Your task to perform on an android device: change the clock display to show seconds Image 0: 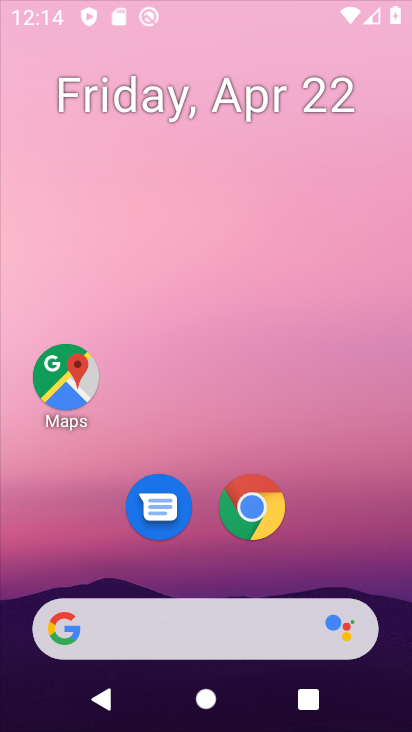
Step 0: click (249, 144)
Your task to perform on an android device: change the clock display to show seconds Image 1: 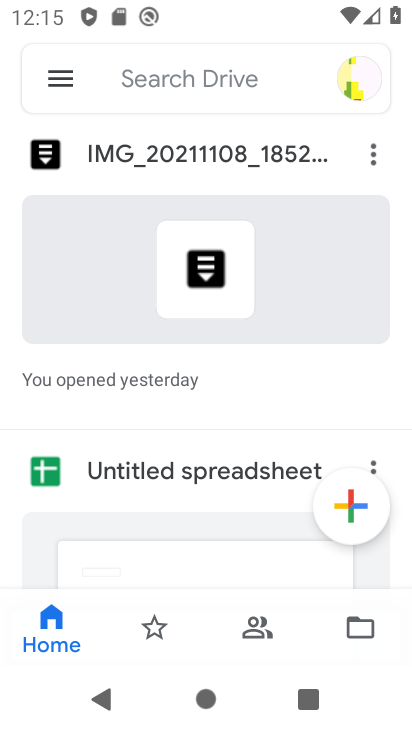
Step 1: press home button
Your task to perform on an android device: change the clock display to show seconds Image 2: 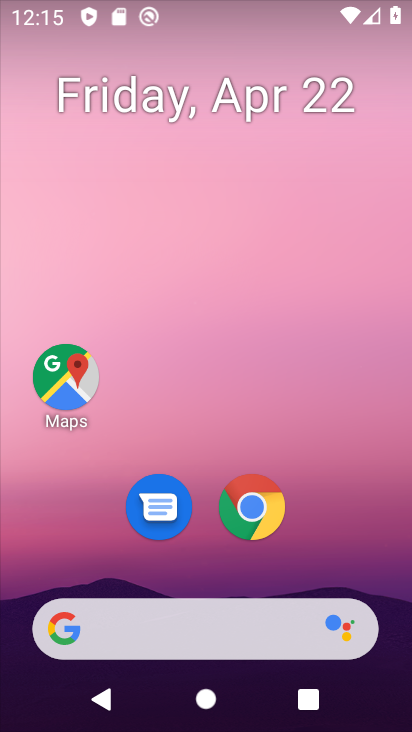
Step 2: drag from (337, 488) to (311, 131)
Your task to perform on an android device: change the clock display to show seconds Image 3: 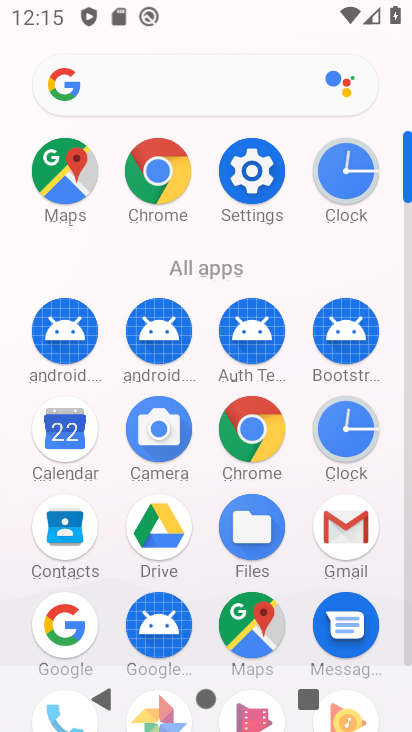
Step 3: click (331, 176)
Your task to perform on an android device: change the clock display to show seconds Image 4: 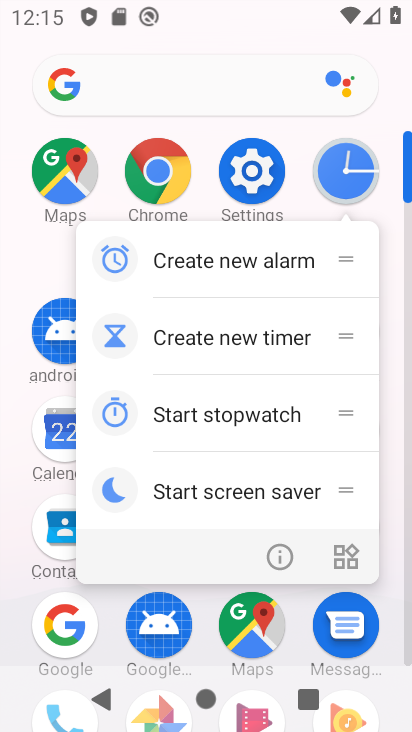
Step 4: click (331, 176)
Your task to perform on an android device: change the clock display to show seconds Image 5: 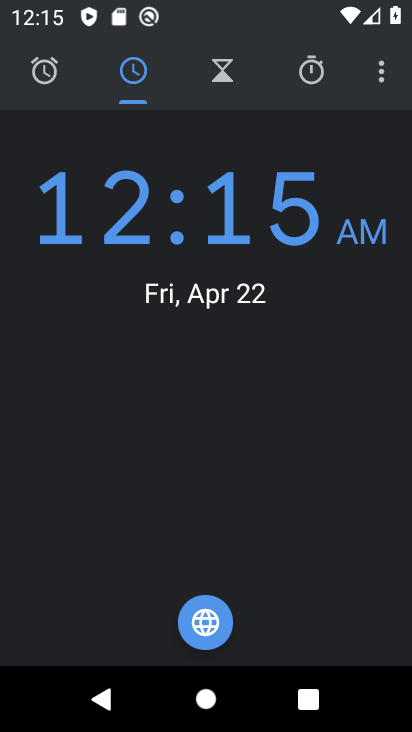
Step 5: click (379, 74)
Your task to perform on an android device: change the clock display to show seconds Image 6: 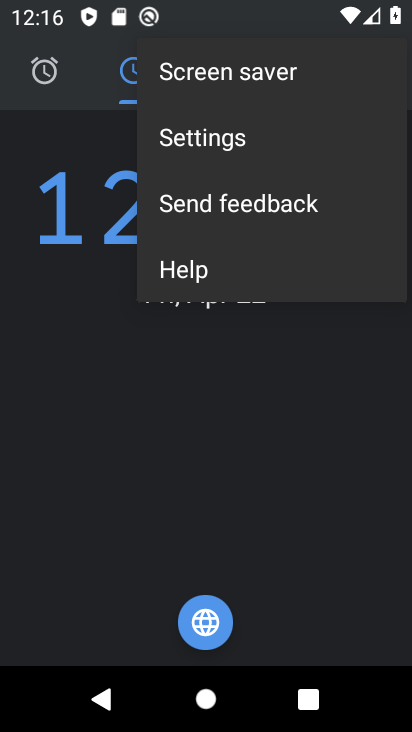
Step 6: click (234, 138)
Your task to perform on an android device: change the clock display to show seconds Image 7: 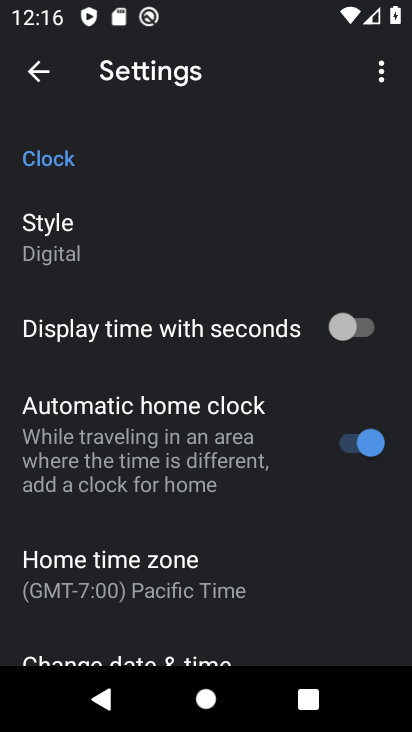
Step 7: click (348, 327)
Your task to perform on an android device: change the clock display to show seconds Image 8: 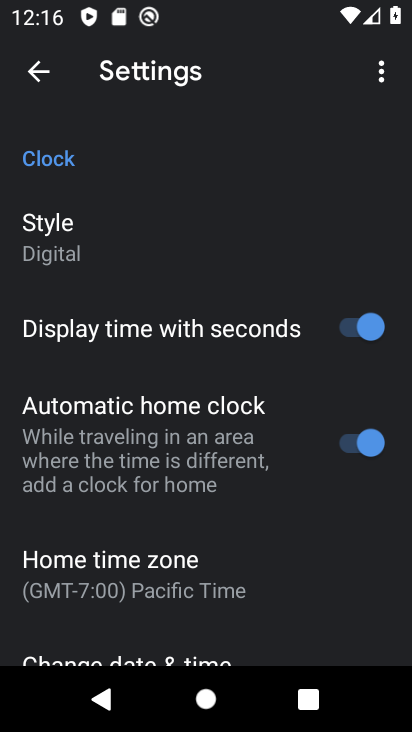
Step 8: task complete